Your task to perform on an android device: Open Amazon Image 0: 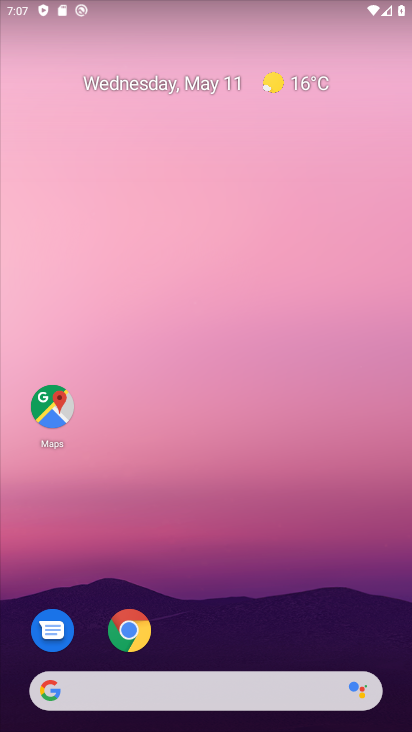
Step 0: drag from (317, 562) to (129, 228)
Your task to perform on an android device: Open Amazon Image 1: 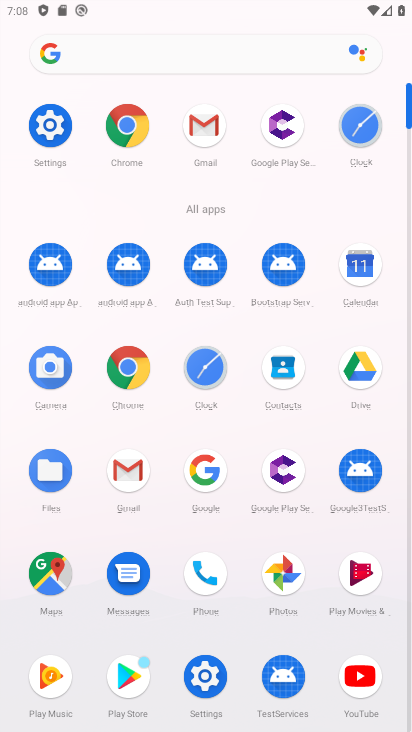
Step 1: drag from (396, 386) to (381, 219)
Your task to perform on an android device: Open Amazon Image 2: 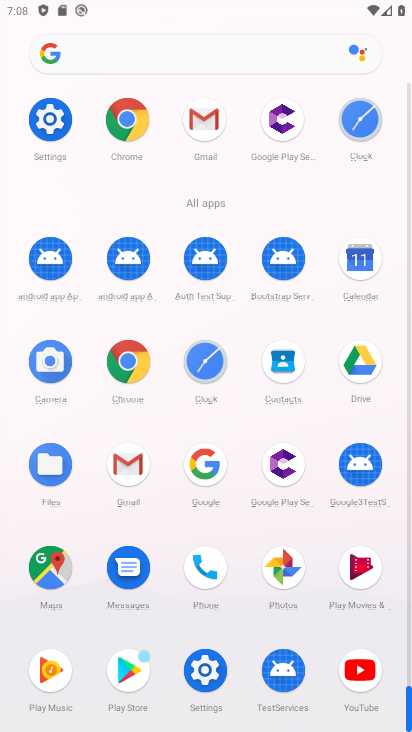
Step 2: click (133, 127)
Your task to perform on an android device: Open Amazon Image 3: 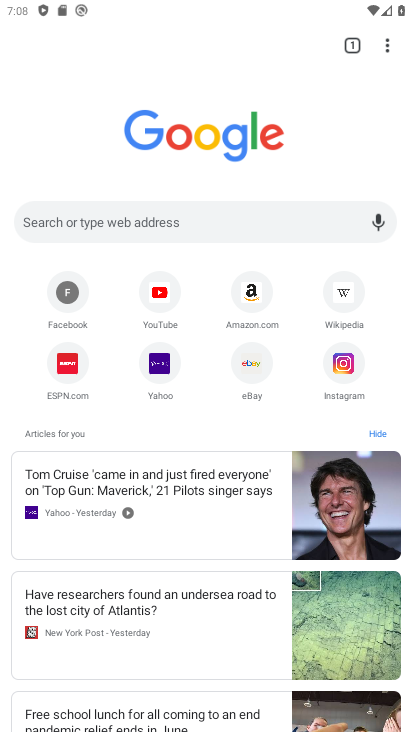
Step 3: click (267, 304)
Your task to perform on an android device: Open Amazon Image 4: 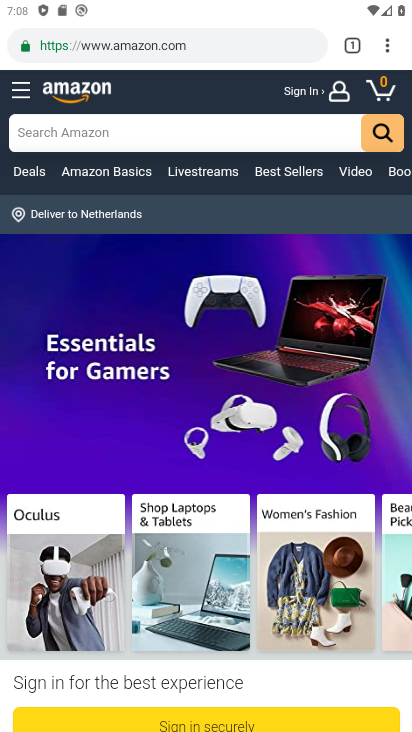
Step 4: task complete